Your task to perform on an android device: check the backup settings in the google photos Image 0: 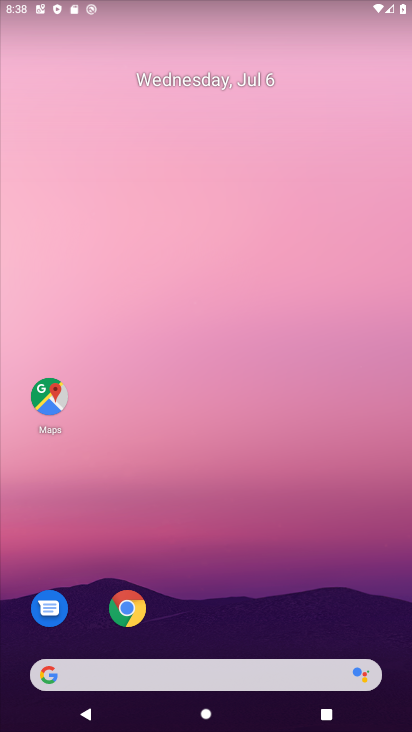
Step 0: drag from (159, 645) to (156, 268)
Your task to perform on an android device: check the backup settings in the google photos Image 1: 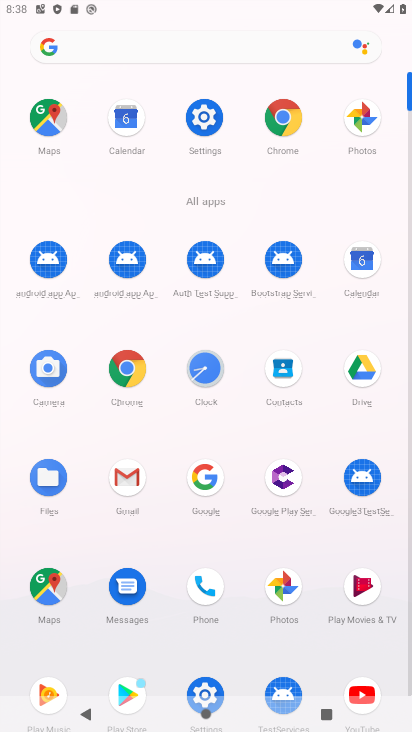
Step 1: click (277, 586)
Your task to perform on an android device: check the backup settings in the google photos Image 2: 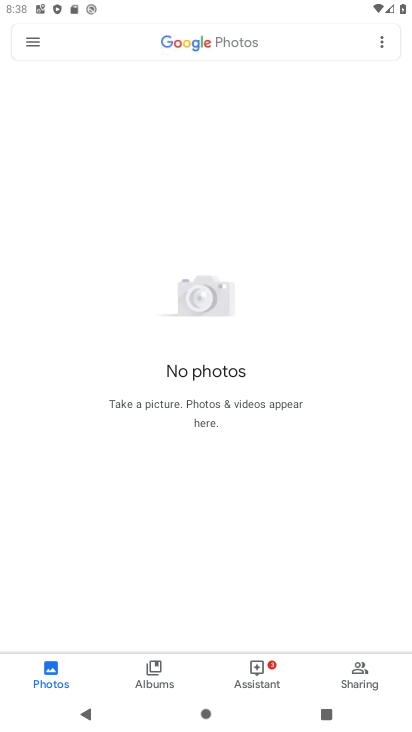
Step 2: click (32, 44)
Your task to perform on an android device: check the backup settings in the google photos Image 3: 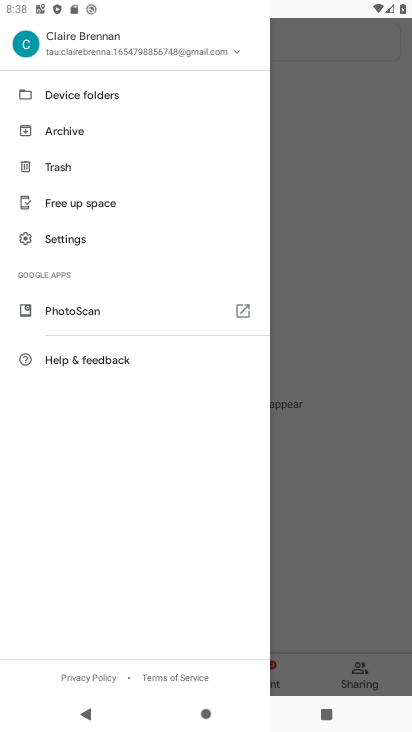
Step 3: click (65, 235)
Your task to perform on an android device: check the backup settings in the google photos Image 4: 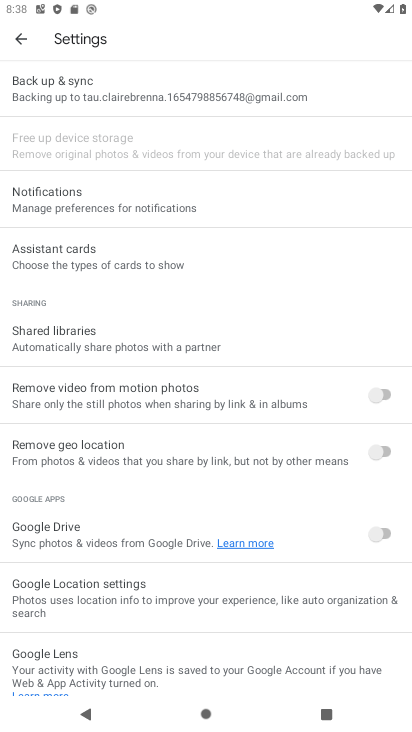
Step 4: click (64, 94)
Your task to perform on an android device: check the backup settings in the google photos Image 5: 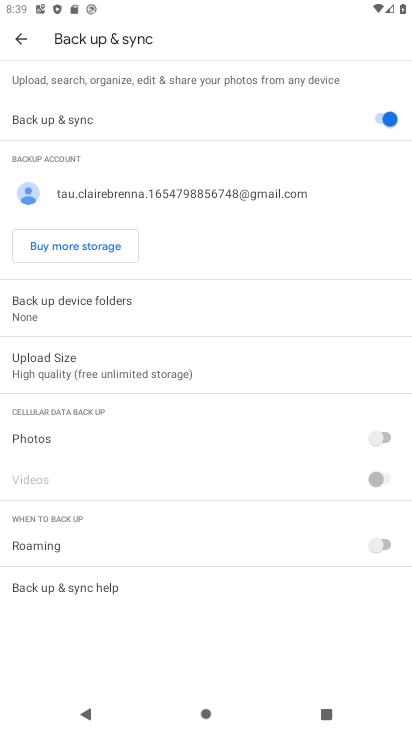
Step 5: task complete